Your task to perform on an android device: Go to calendar. Show me events next week Image 0: 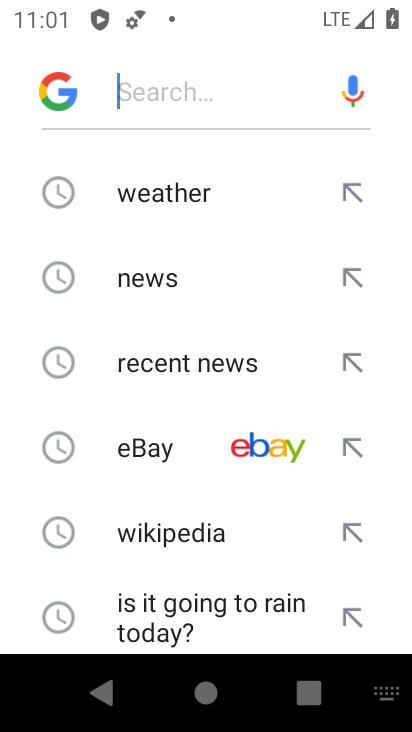
Step 0: press home button
Your task to perform on an android device: Go to calendar. Show me events next week Image 1: 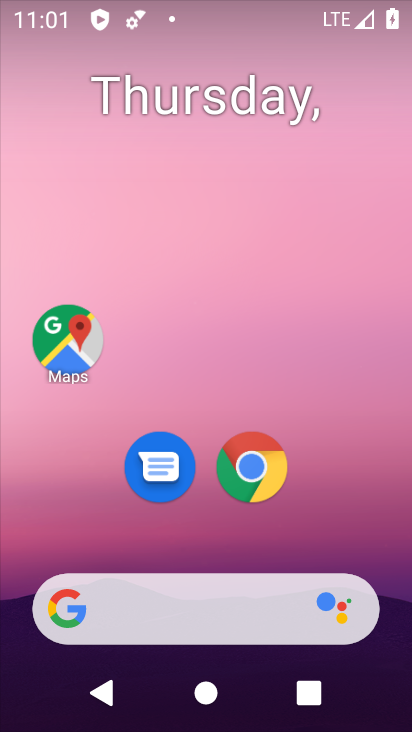
Step 1: drag from (175, 498) to (322, 69)
Your task to perform on an android device: Go to calendar. Show me events next week Image 2: 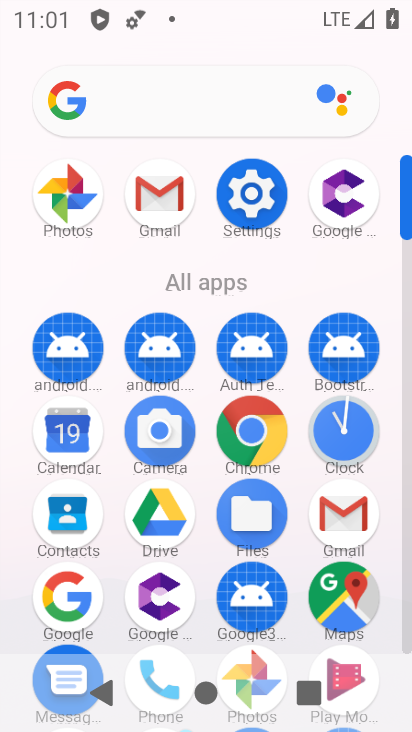
Step 2: click (63, 448)
Your task to perform on an android device: Go to calendar. Show me events next week Image 3: 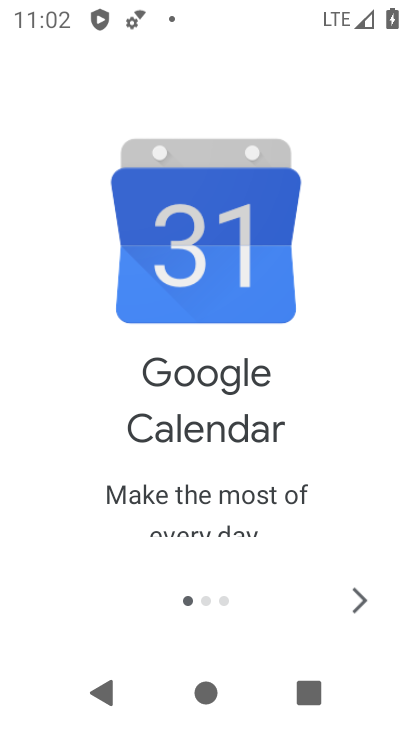
Step 3: click (365, 599)
Your task to perform on an android device: Go to calendar. Show me events next week Image 4: 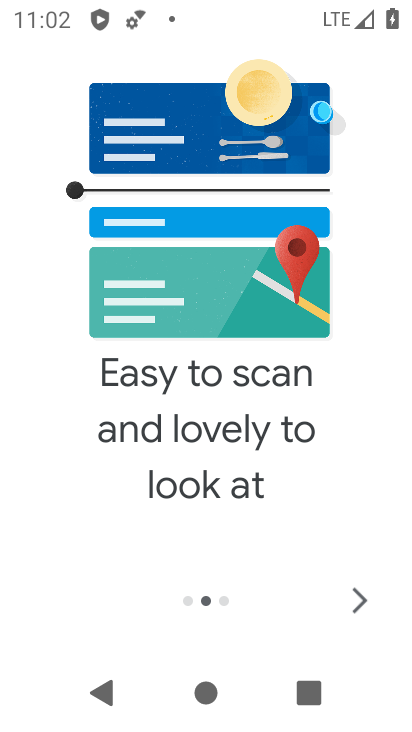
Step 4: click (352, 594)
Your task to perform on an android device: Go to calendar. Show me events next week Image 5: 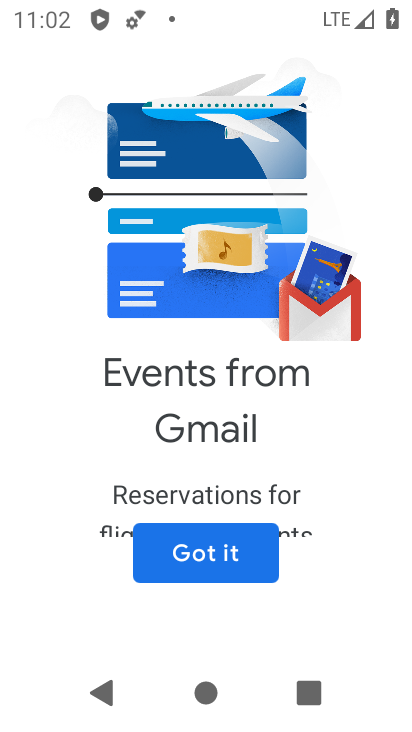
Step 5: click (236, 556)
Your task to perform on an android device: Go to calendar. Show me events next week Image 6: 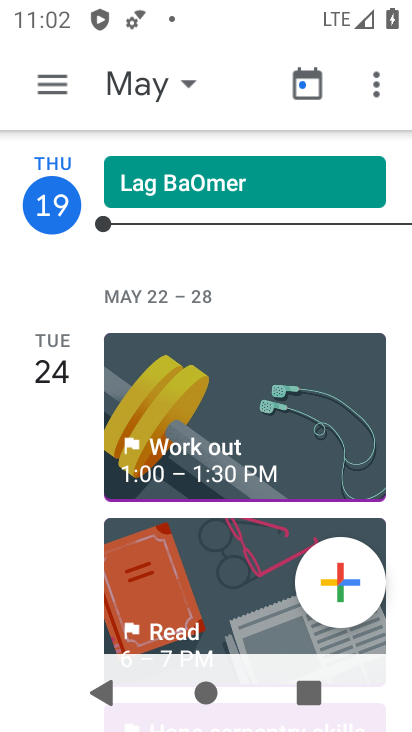
Step 6: click (171, 78)
Your task to perform on an android device: Go to calendar. Show me events next week Image 7: 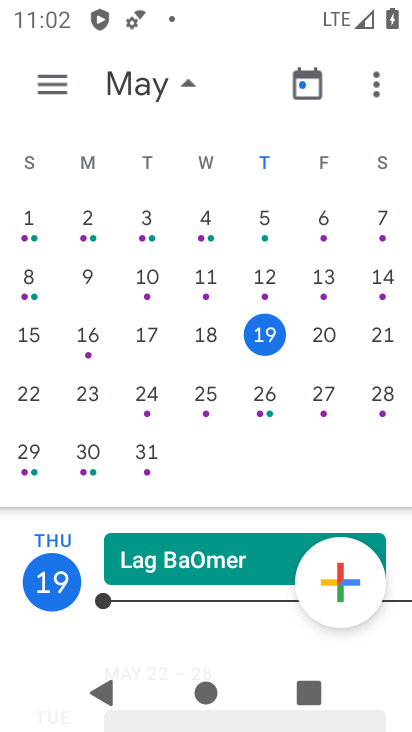
Step 7: drag from (379, 338) to (80, 279)
Your task to perform on an android device: Go to calendar. Show me events next week Image 8: 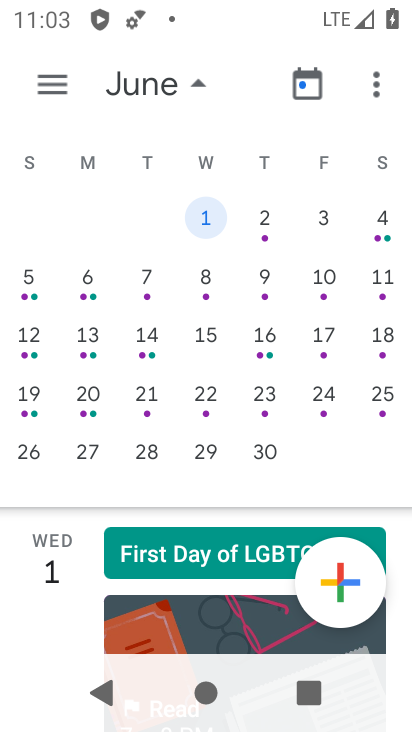
Step 8: drag from (28, 327) to (376, 333)
Your task to perform on an android device: Go to calendar. Show me events next week Image 9: 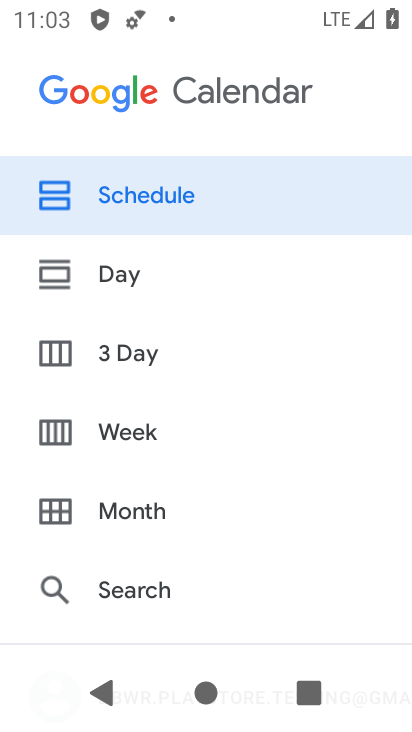
Step 9: drag from (372, 333) to (84, 307)
Your task to perform on an android device: Go to calendar. Show me events next week Image 10: 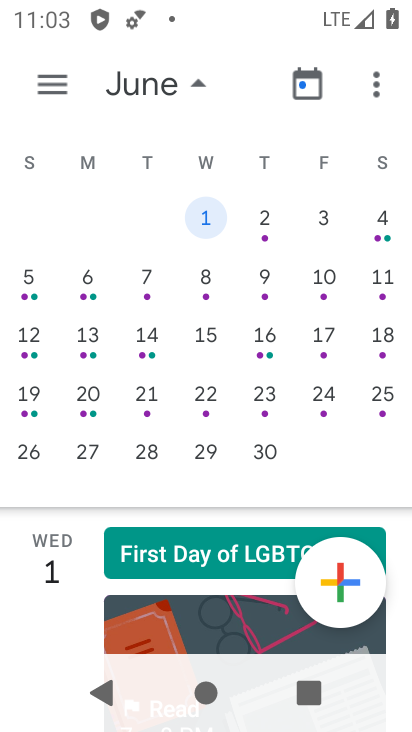
Step 10: drag from (102, 344) to (381, 310)
Your task to perform on an android device: Go to calendar. Show me events next week Image 11: 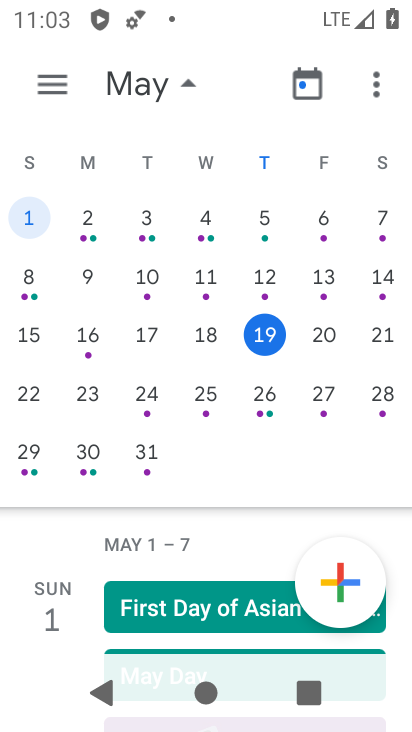
Step 11: click (88, 393)
Your task to perform on an android device: Go to calendar. Show me events next week Image 12: 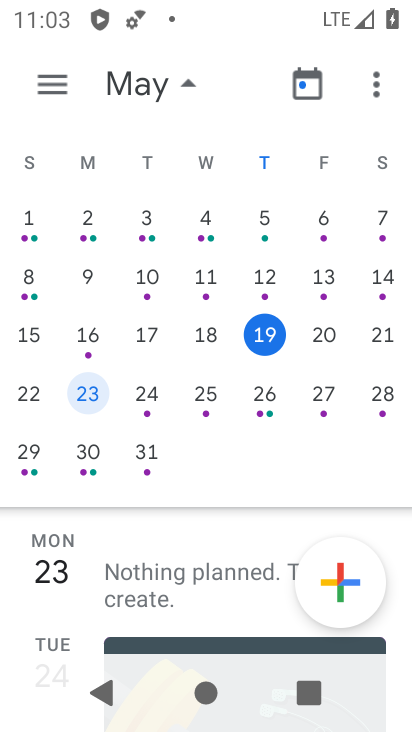
Step 12: drag from (210, 621) to (321, 85)
Your task to perform on an android device: Go to calendar. Show me events next week Image 13: 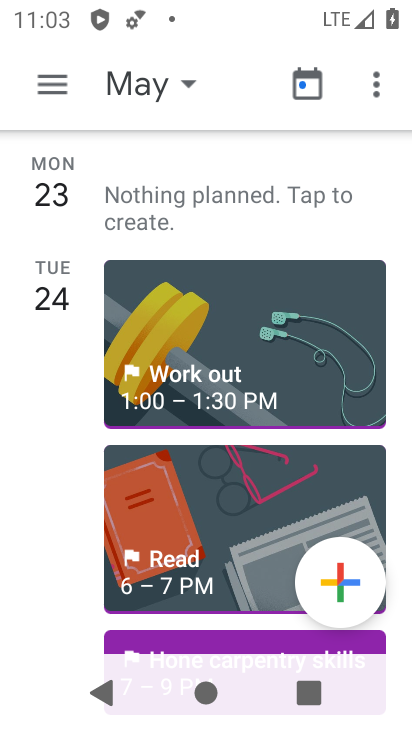
Step 13: click (188, 520)
Your task to perform on an android device: Go to calendar. Show me events next week Image 14: 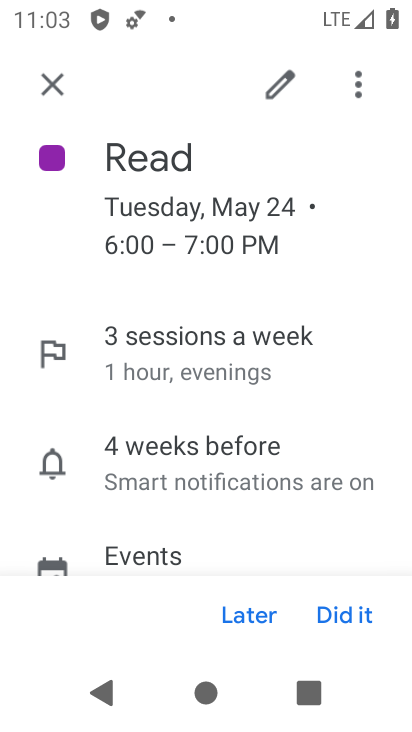
Step 14: task complete